Your task to perform on an android device: When is my next appointment? Image 0: 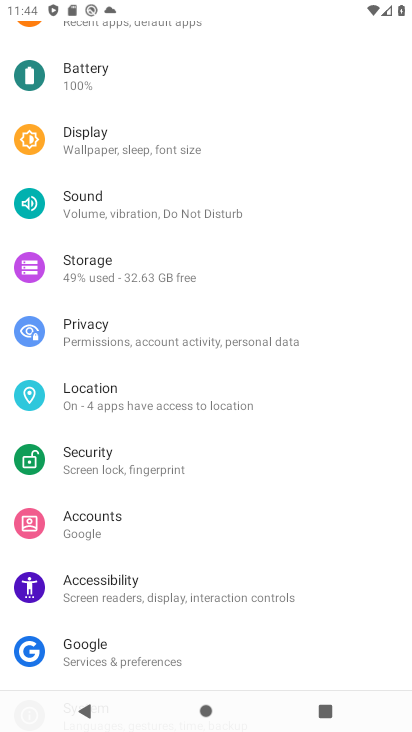
Step 0: press home button
Your task to perform on an android device: When is my next appointment? Image 1: 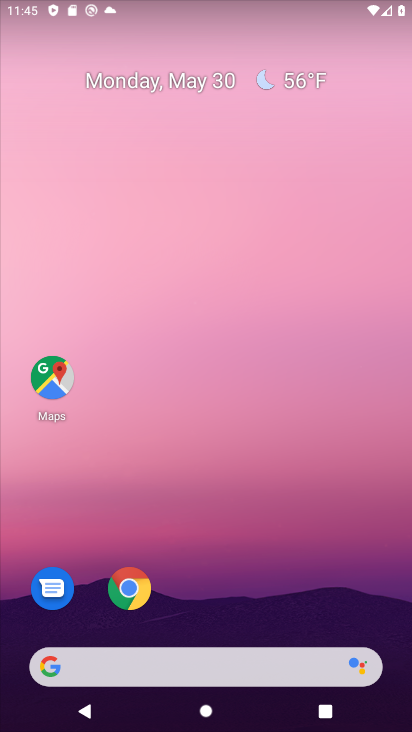
Step 1: drag from (224, 640) to (274, 0)
Your task to perform on an android device: When is my next appointment? Image 2: 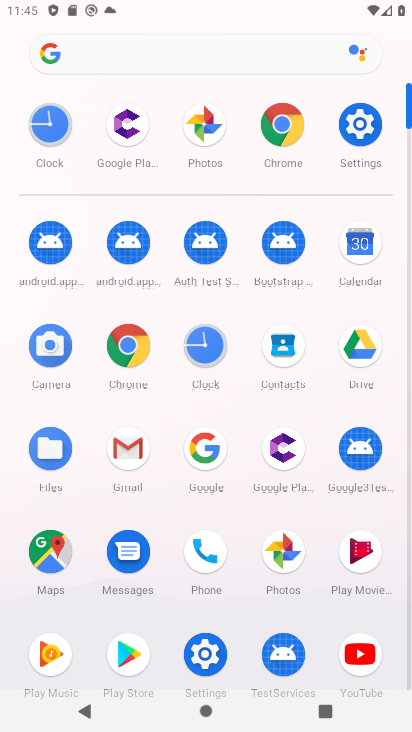
Step 2: click (358, 287)
Your task to perform on an android device: When is my next appointment? Image 3: 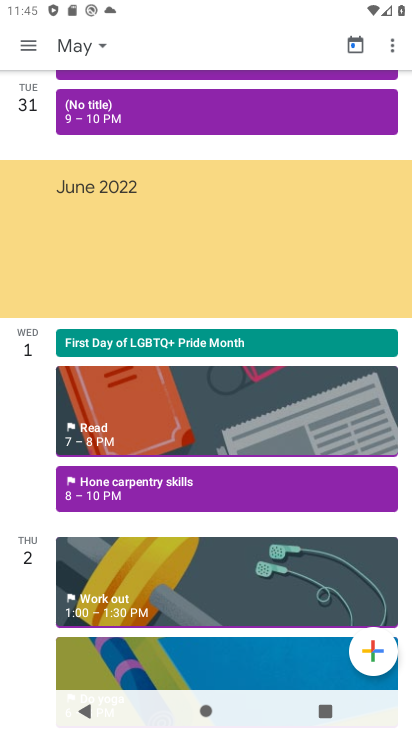
Step 3: task complete